Your task to perform on an android device: Search for "razer deathadder" on amazon.com, select the first entry, and add it to the cart. Image 0: 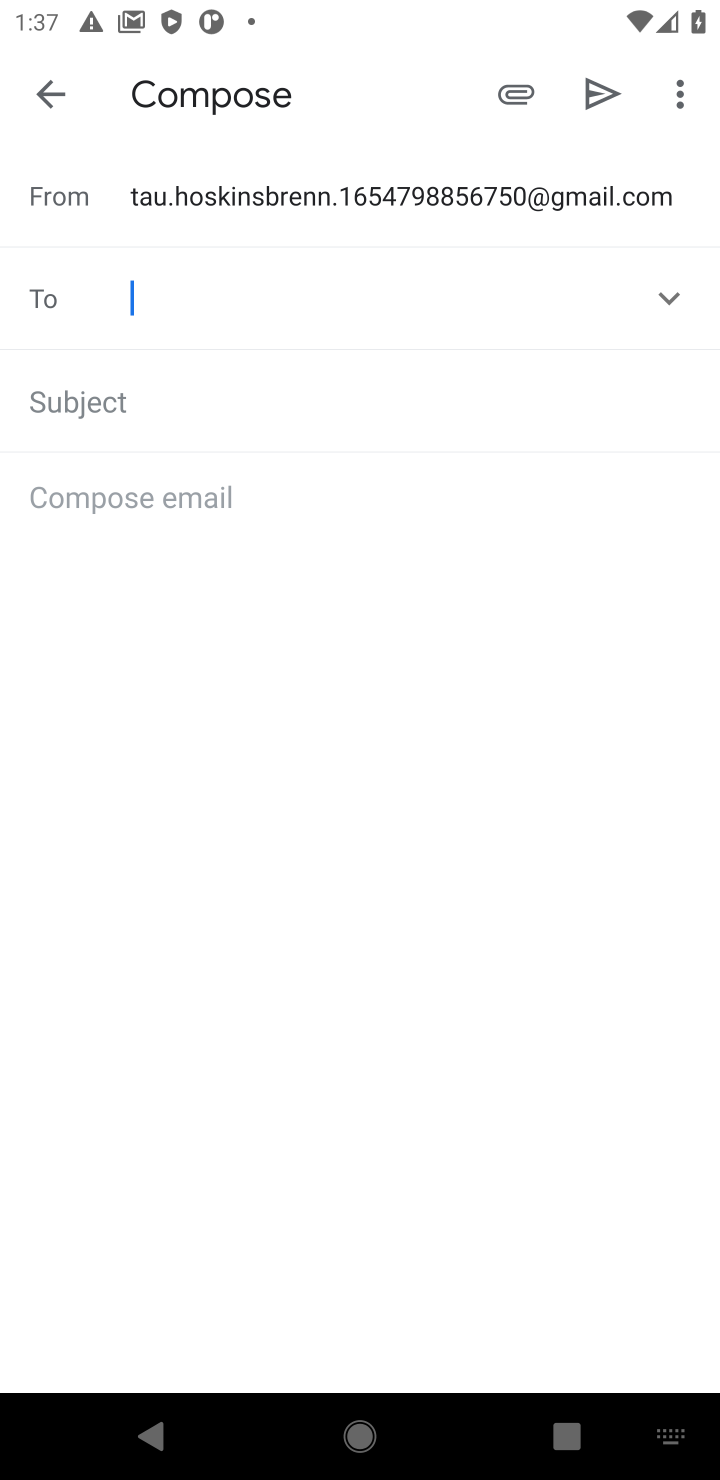
Step 0: press home button
Your task to perform on an android device: Search for "razer deathadder" on amazon.com, select the first entry, and add it to the cart. Image 1: 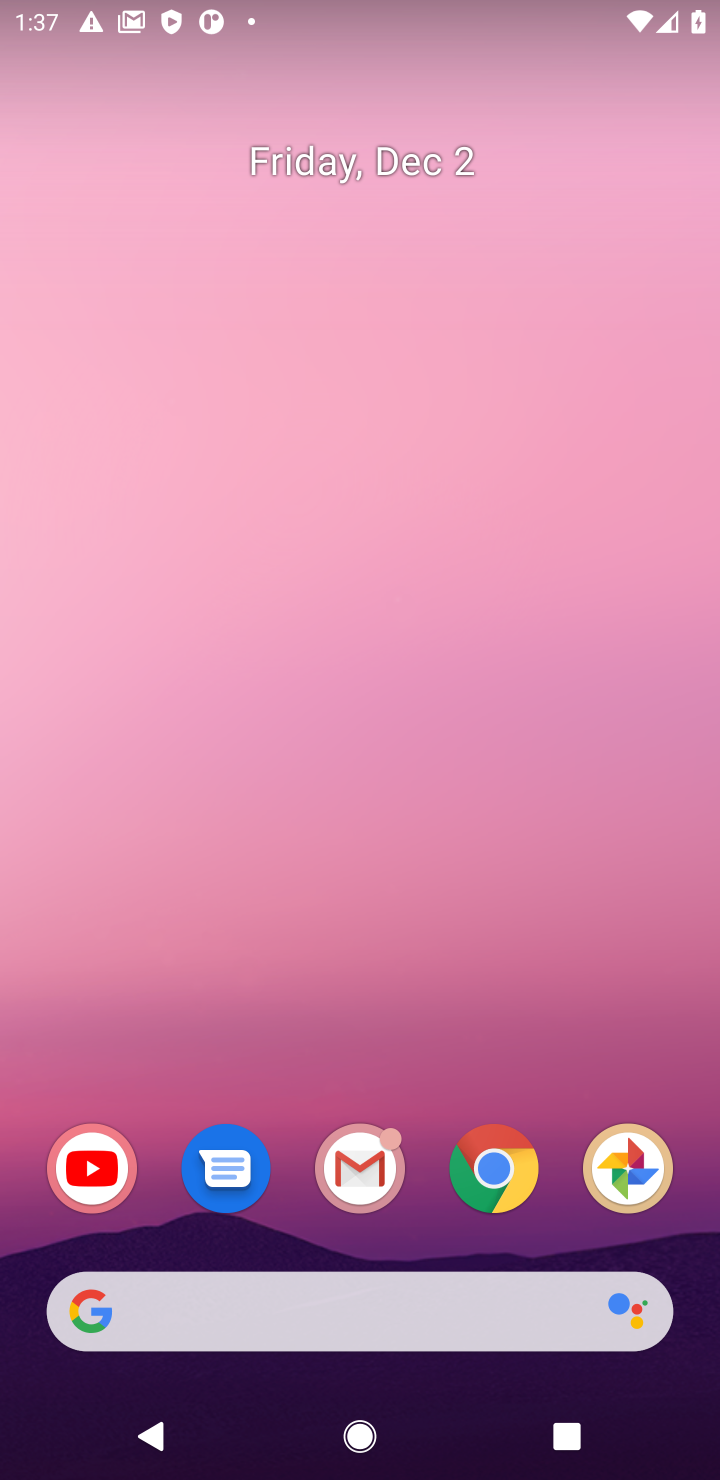
Step 1: click (499, 1168)
Your task to perform on an android device: Search for "razer deathadder" on amazon.com, select the first entry, and add it to the cart. Image 2: 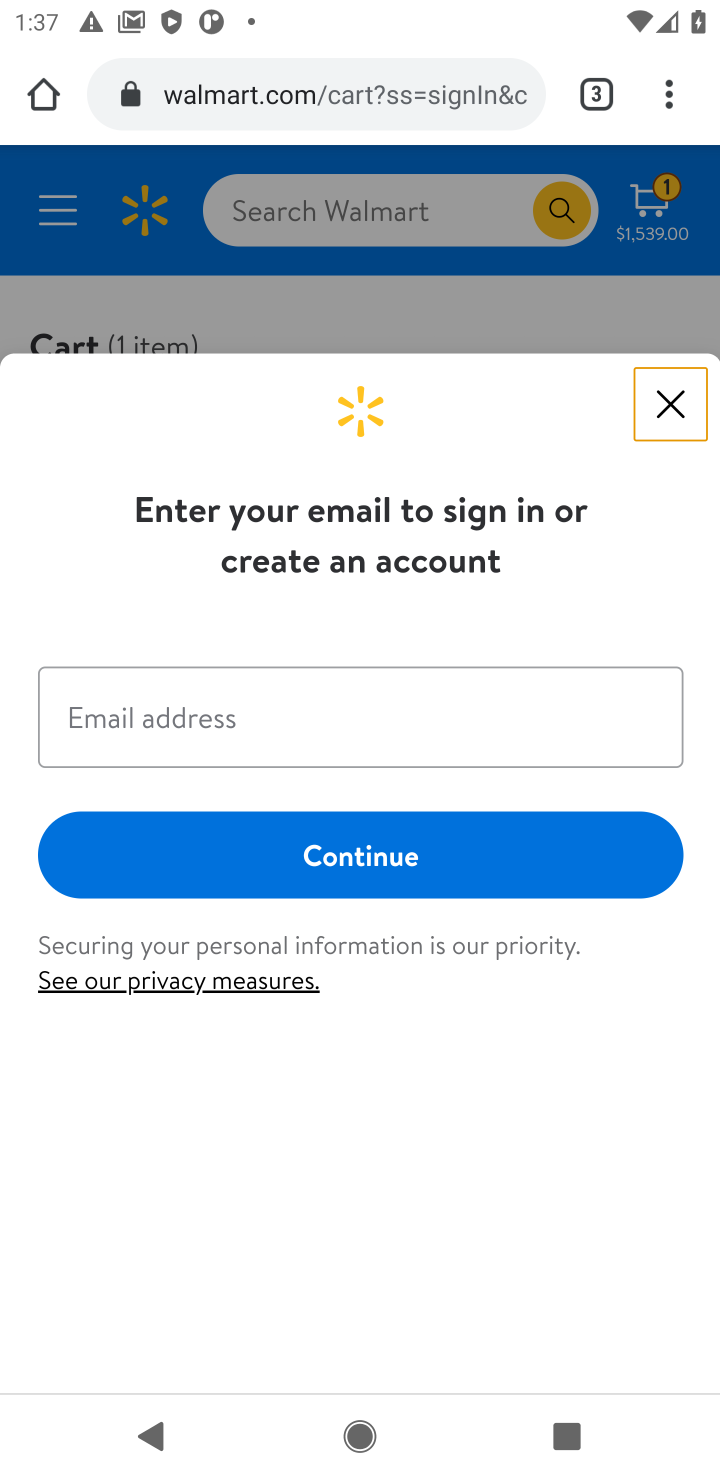
Step 2: click (305, 97)
Your task to perform on an android device: Search for "razer deathadder" on amazon.com, select the first entry, and add it to the cart. Image 3: 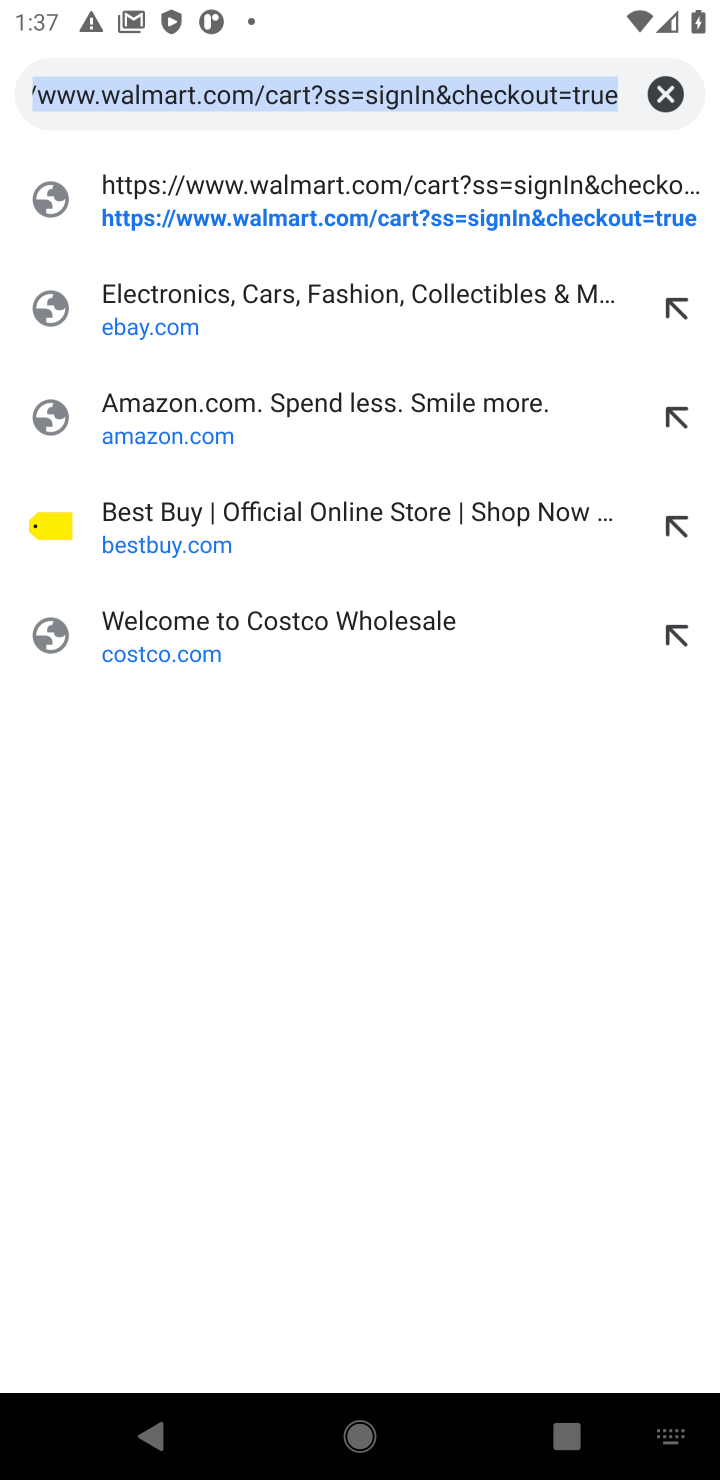
Step 3: click (137, 415)
Your task to perform on an android device: Search for "razer deathadder" on amazon.com, select the first entry, and add it to the cart. Image 4: 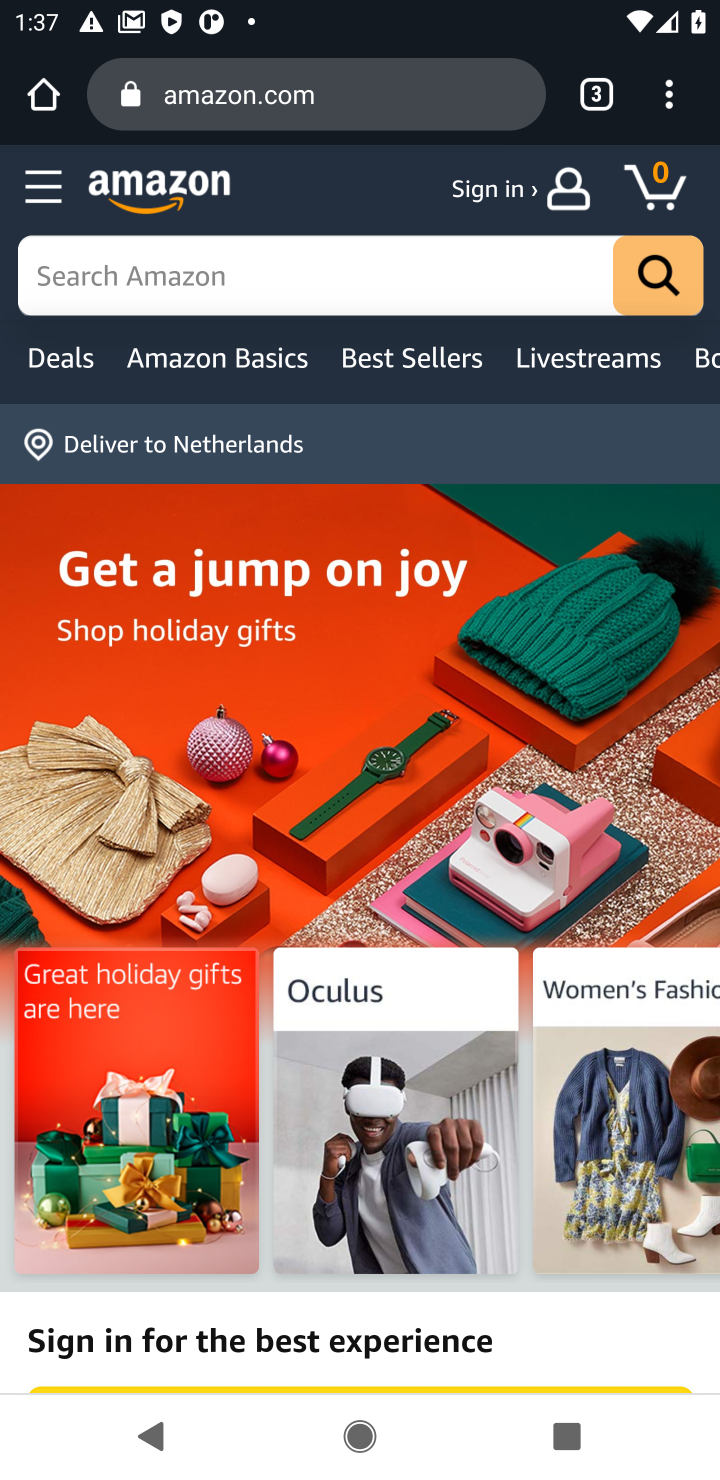
Step 4: click (120, 284)
Your task to perform on an android device: Search for "razer deathadder" on amazon.com, select the first entry, and add it to the cart. Image 5: 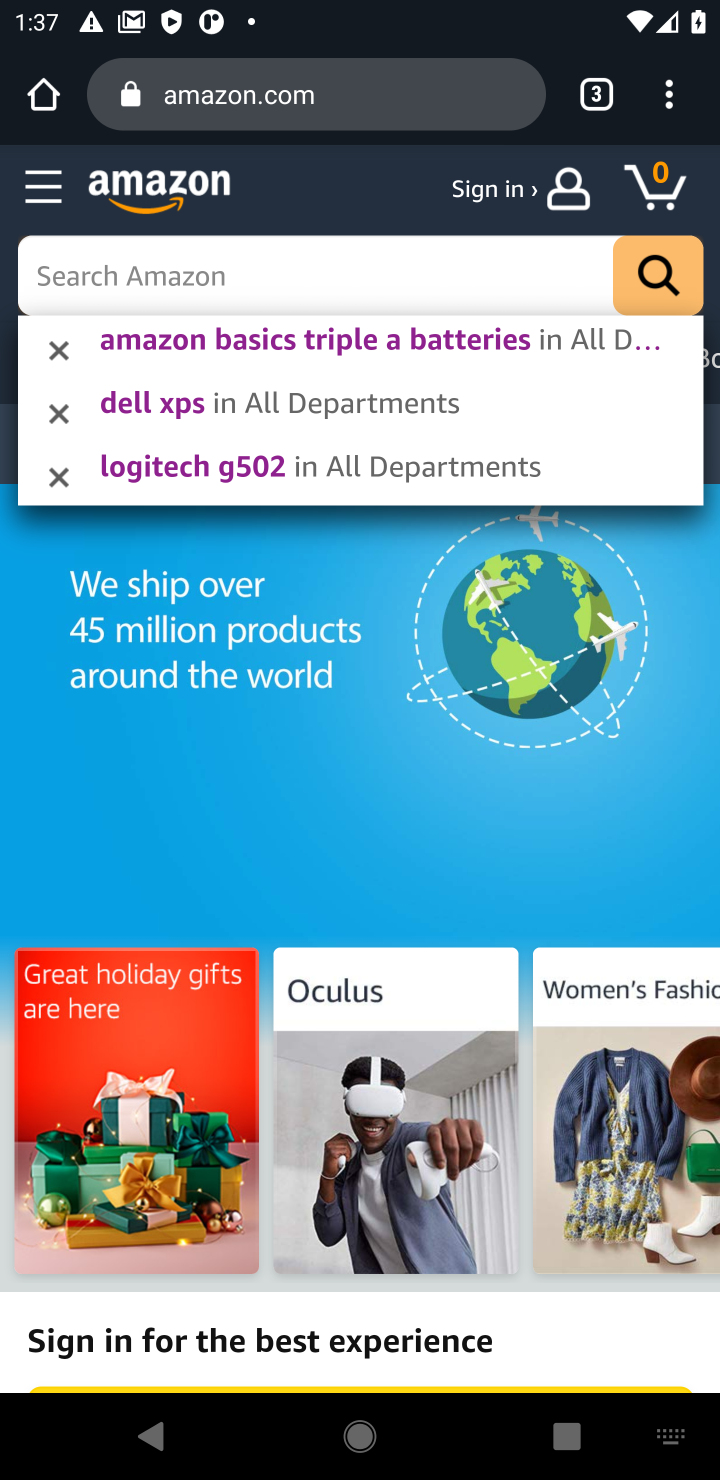
Step 5: type "razer deathadder"
Your task to perform on an android device: Search for "razer deathadder" on amazon.com, select the first entry, and add it to the cart. Image 6: 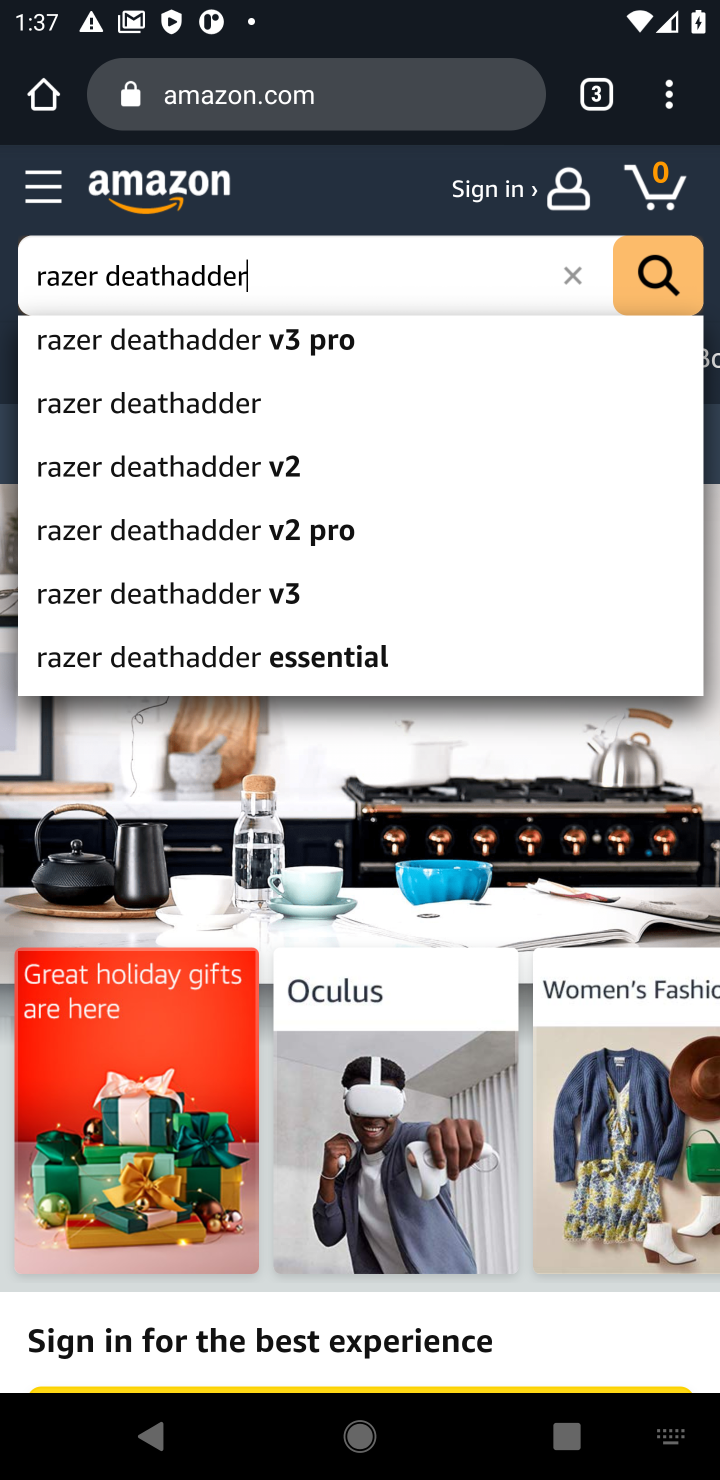
Step 6: click (131, 419)
Your task to perform on an android device: Search for "razer deathadder" on amazon.com, select the first entry, and add it to the cart. Image 7: 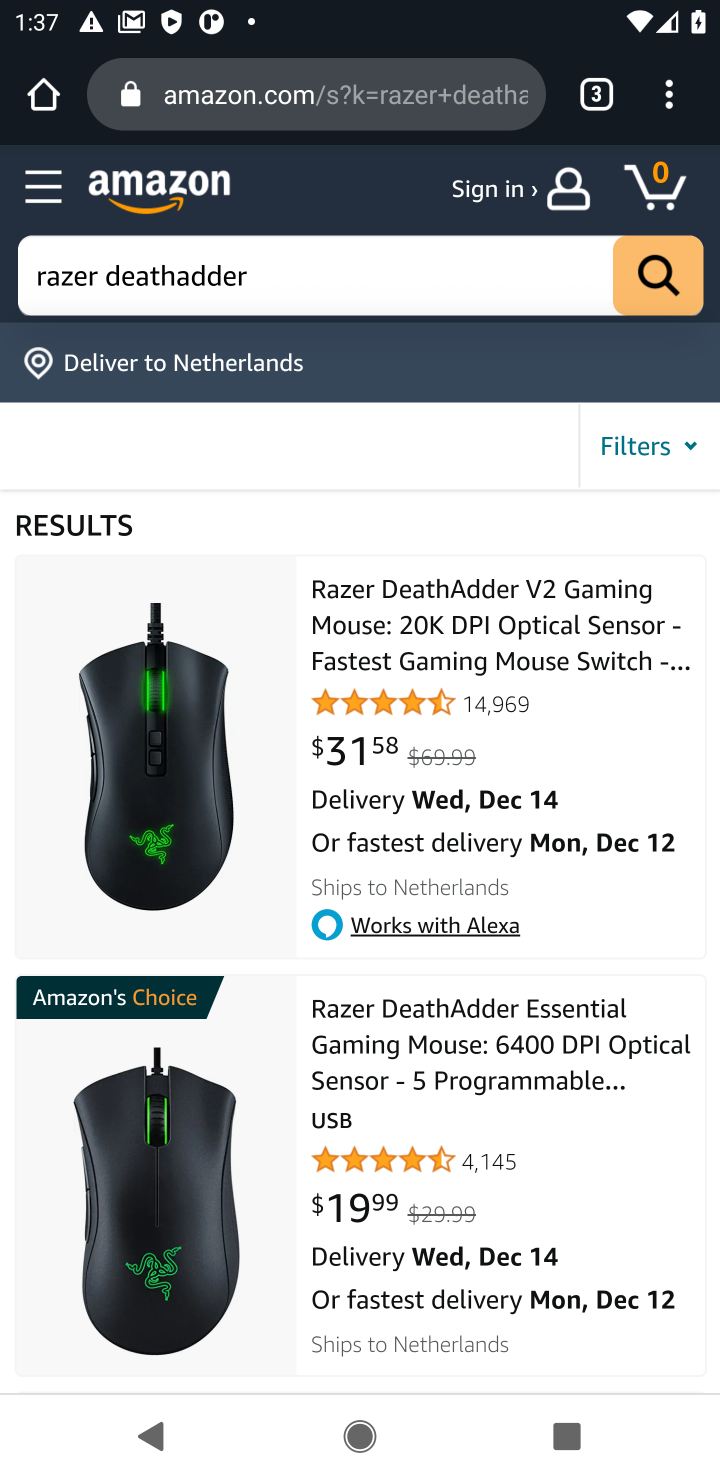
Step 7: click (431, 642)
Your task to perform on an android device: Search for "razer deathadder" on amazon.com, select the first entry, and add it to the cart. Image 8: 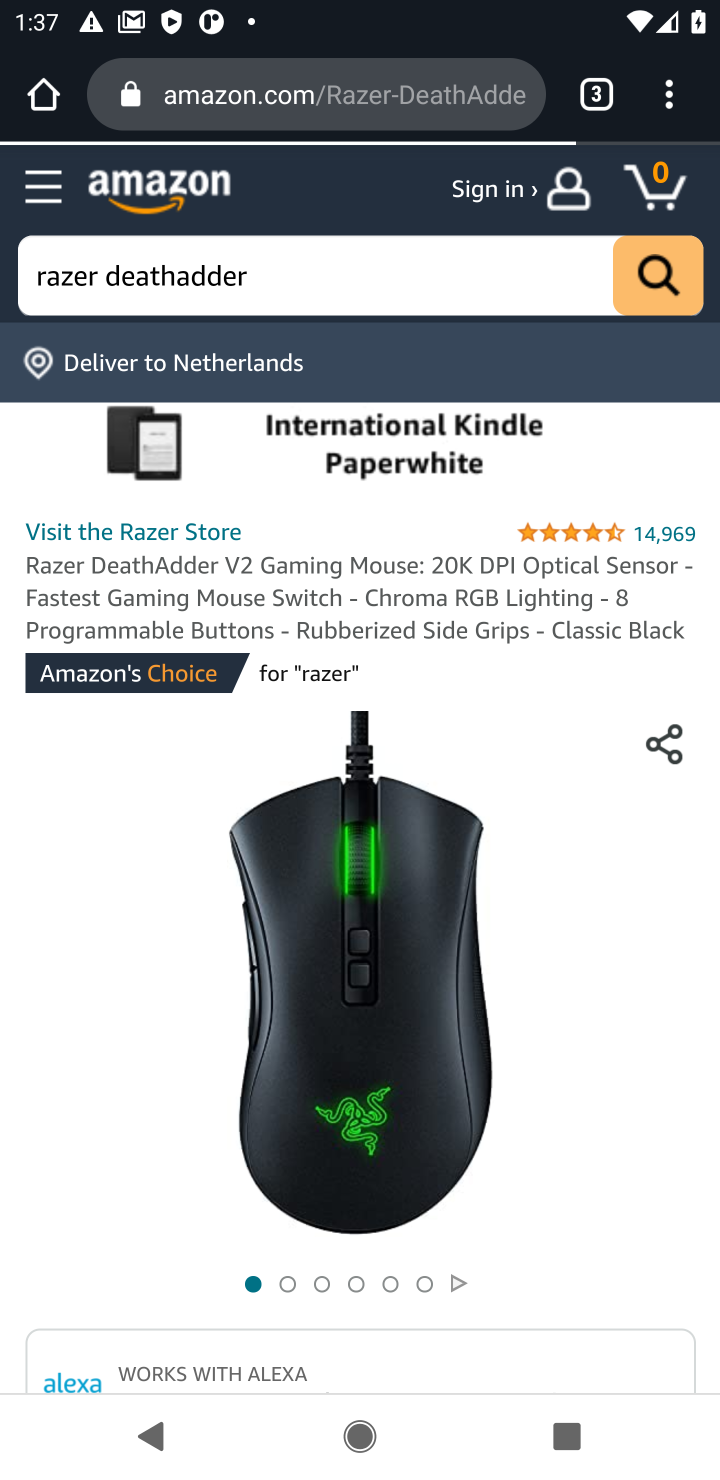
Step 8: drag from (327, 978) to (283, 383)
Your task to perform on an android device: Search for "razer deathadder" on amazon.com, select the first entry, and add it to the cart. Image 9: 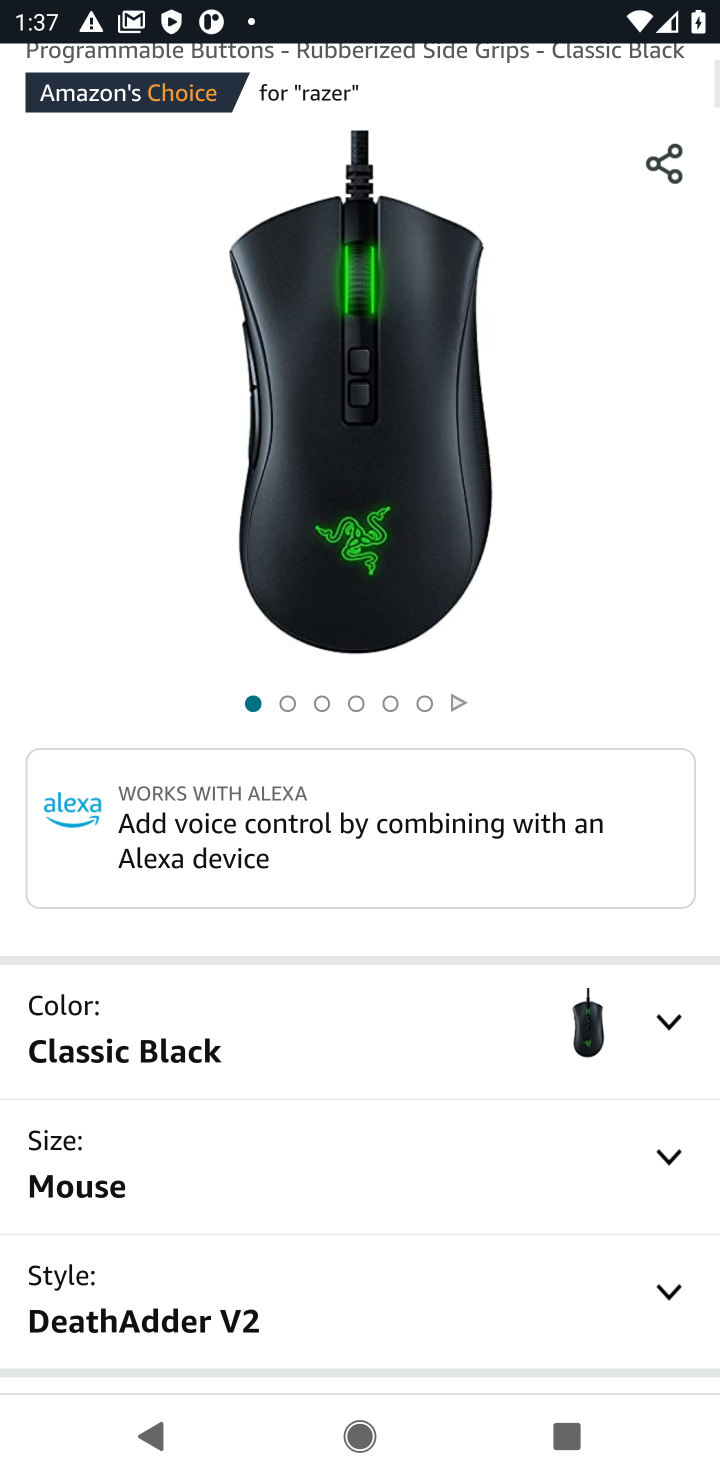
Step 9: drag from (338, 943) to (316, 307)
Your task to perform on an android device: Search for "razer deathadder" on amazon.com, select the first entry, and add it to the cart. Image 10: 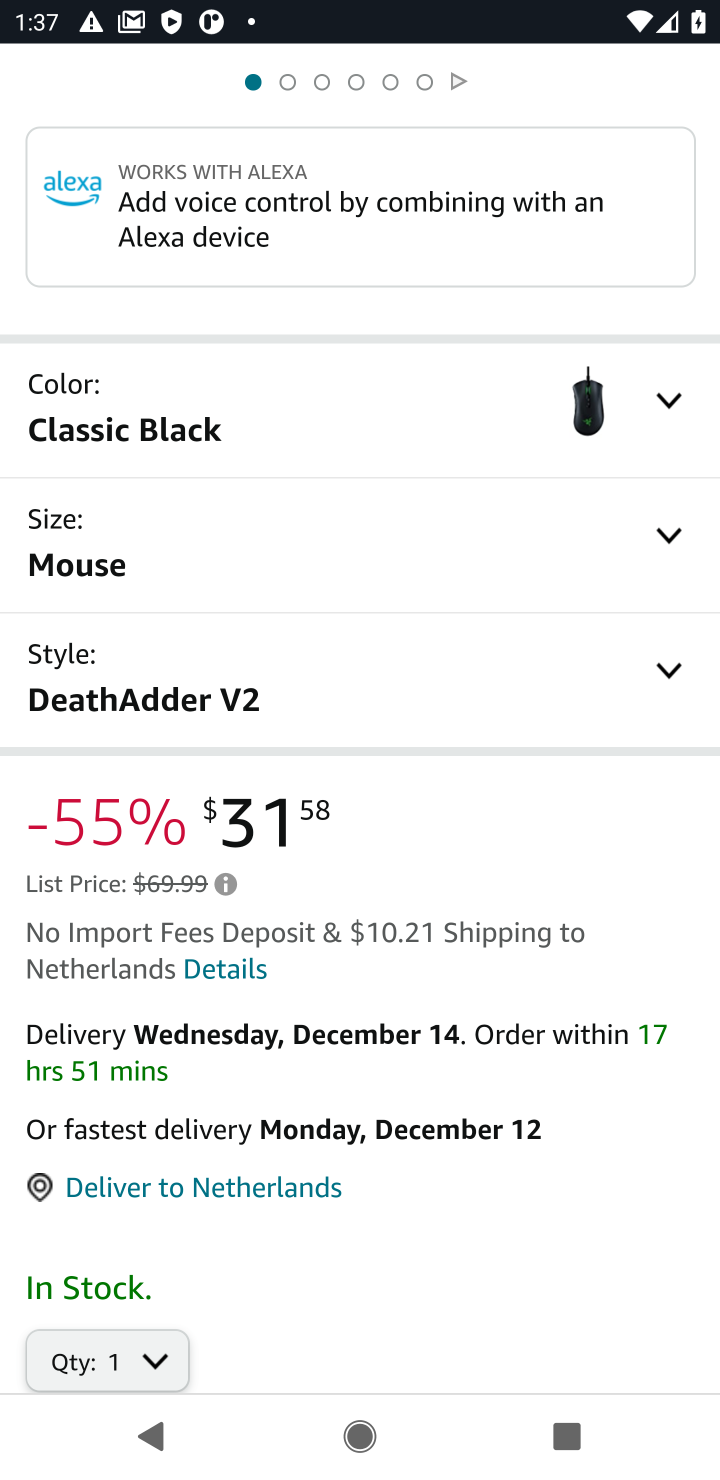
Step 10: drag from (592, 923) to (589, 565)
Your task to perform on an android device: Search for "razer deathadder" on amazon.com, select the first entry, and add it to the cart. Image 11: 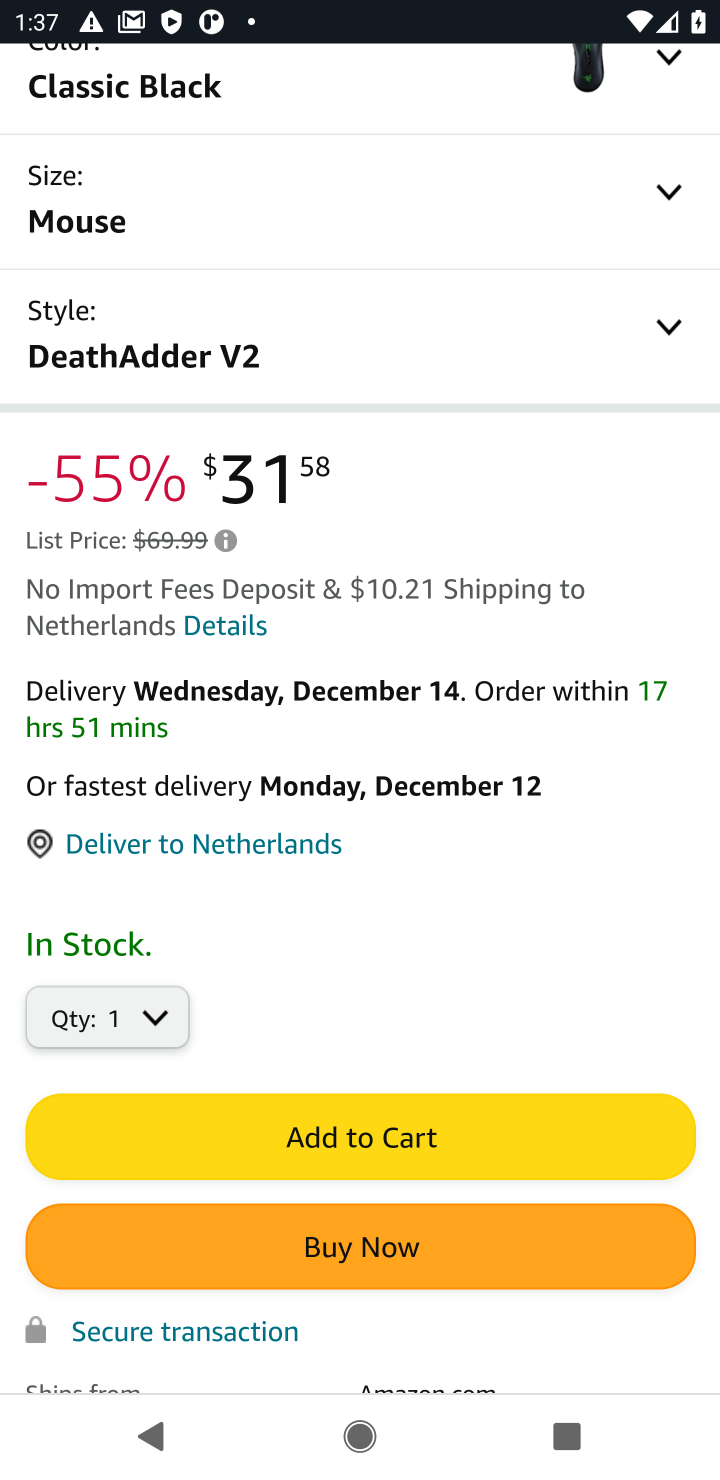
Step 11: click (312, 1128)
Your task to perform on an android device: Search for "razer deathadder" on amazon.com, select the first entry, and add it to the cart. Image 12: 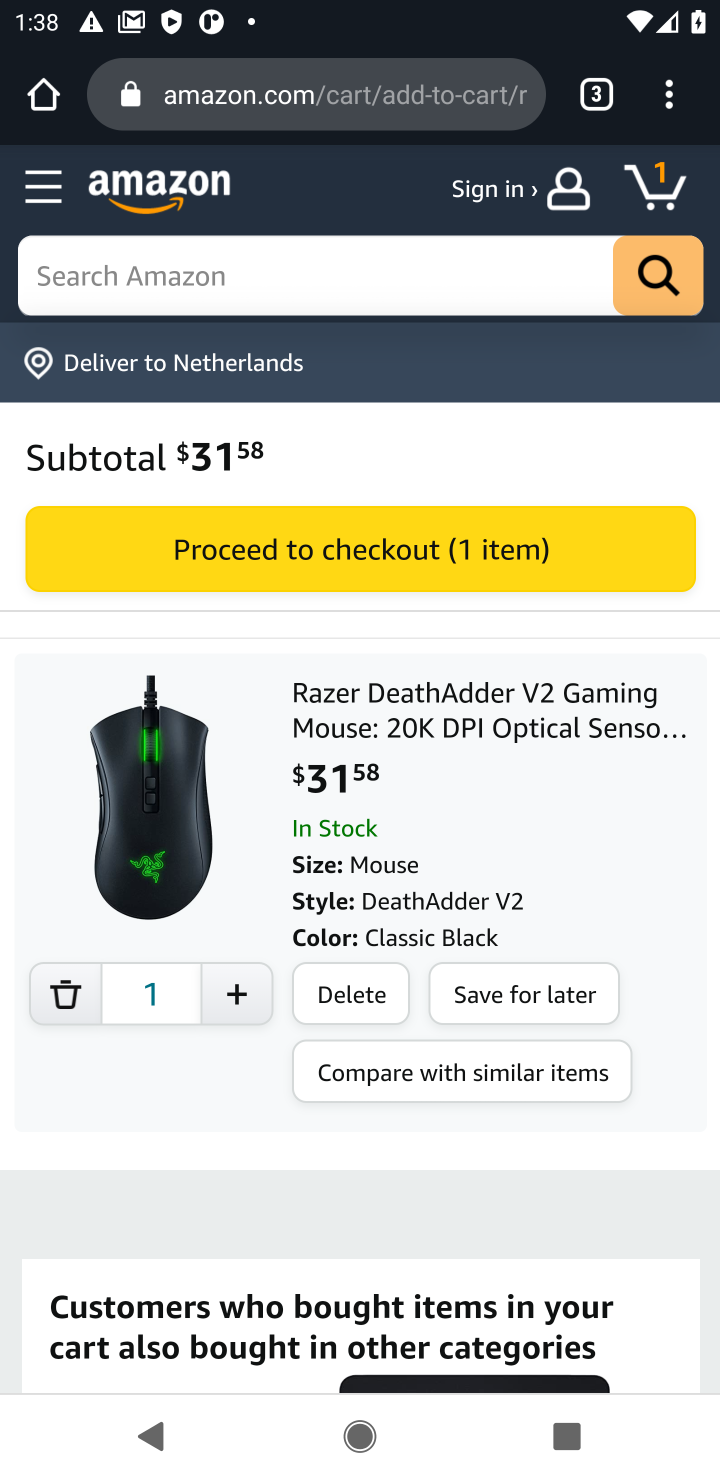
Step 12: task complete